Your task to perform on an android device: turn on showing notifications on the lock screen Image 0: 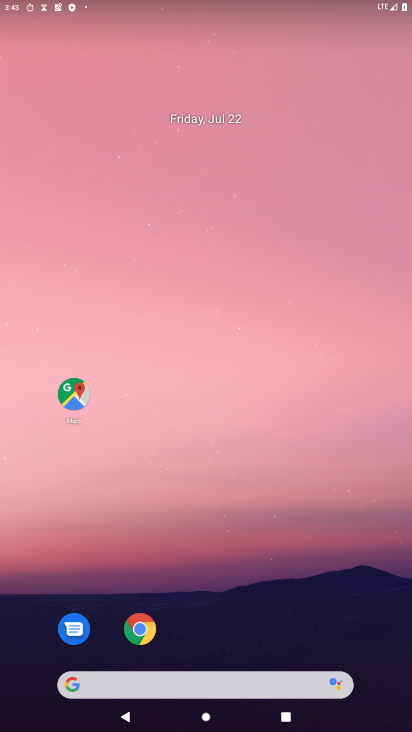
Step 0: drag from (197, 623) to (229, 1)
Your task to perform on an android device: turn on showing notifications on the lock screen Image 1: 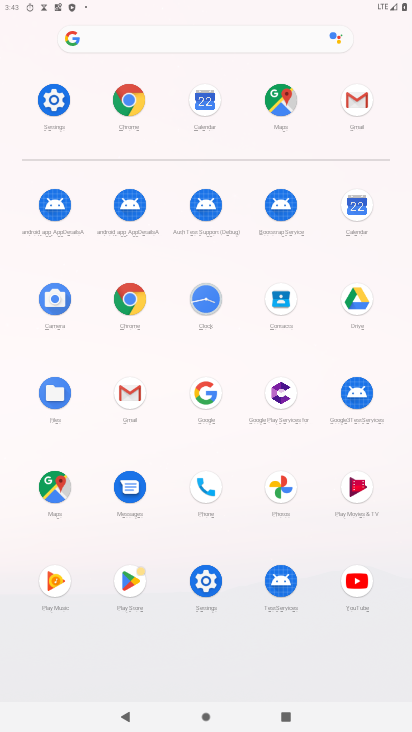
Step 1: click (59, 110)
Your task to perform on an android device: turn on showing notifications on the lock screen Image 2: 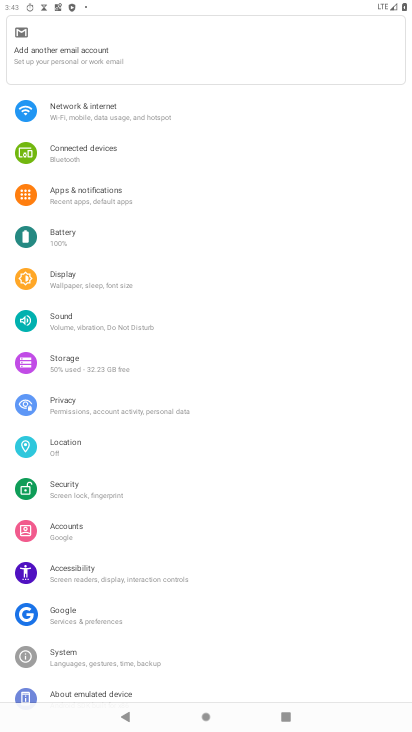
Step 2: click (145, 195)
Your task to perform on an android device: turn on showing notifications on the lock screen Image 3: 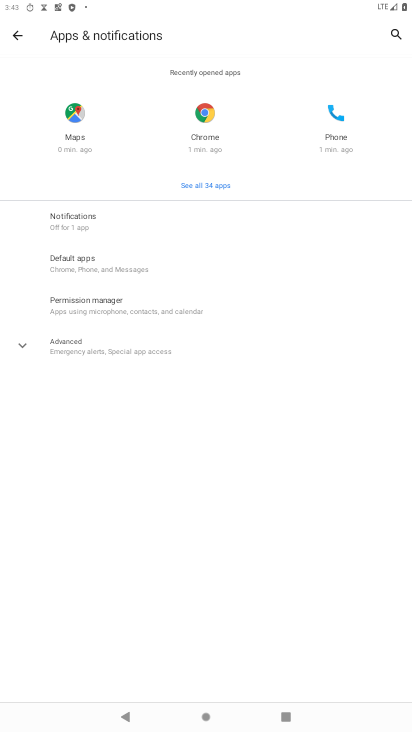
Step 3: click (117, 227)
Your task to perform on an android device: turn on showing notifications on the lock screen Image 4: 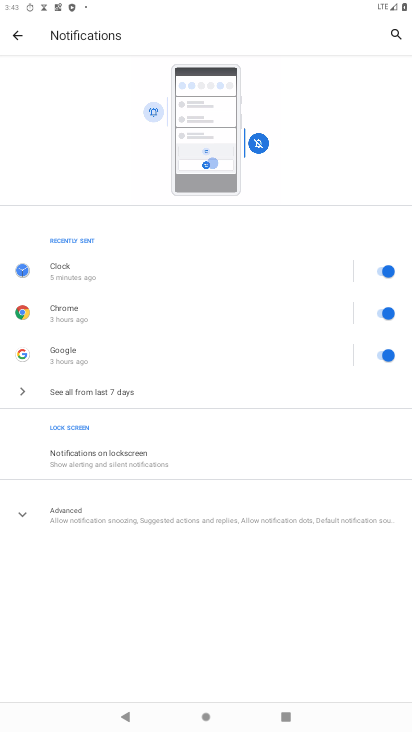
Step 4: click (127, 461)
Your task to perform on an android device: turn on showing notifications on the lock screen Image 5: 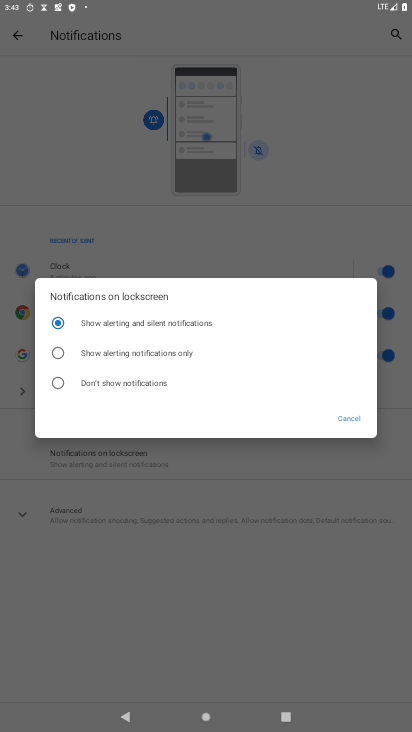
Step 5: task complete